Your task to perform on an android device: toggle airplane mode Image 0: 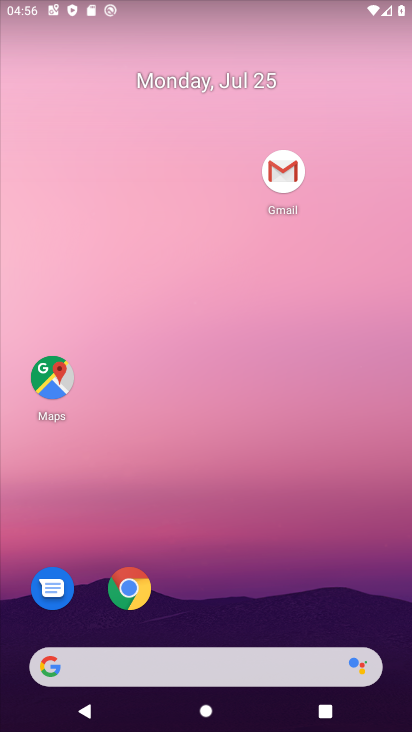
Step 0: drag from (293, 572) to (264, 125)
Your task to perform on an android device: toggle airplane mode Image 1: 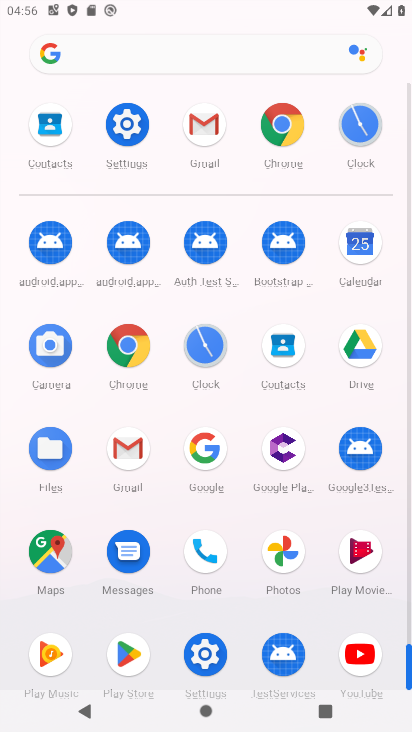
Step 1: click (144, 129)
Your task to perform on an android device: toggle airplane mode Image 2: 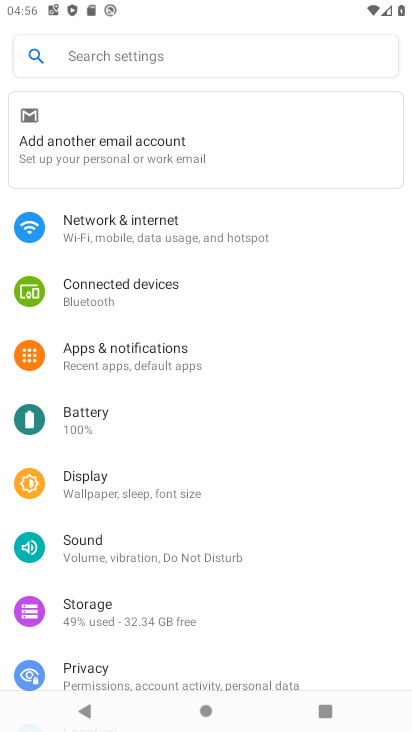
Step 2: click (128, 226)
Your task to perform on an android device: toggle airplane mode Image 3: 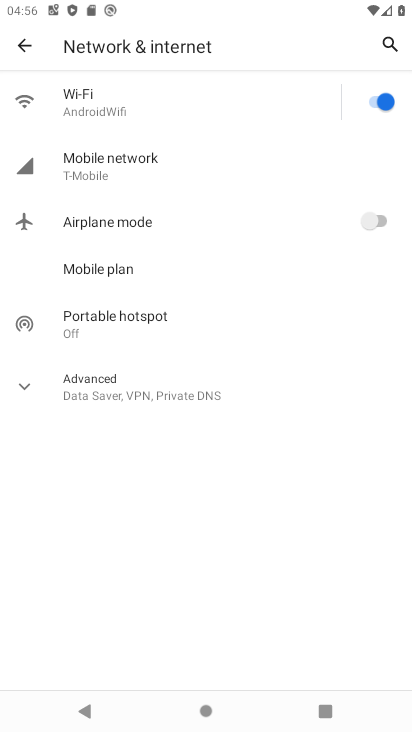
Step 3: click (364, 219)
Your task to perform on an android device: toggle airplane mode Image 4: 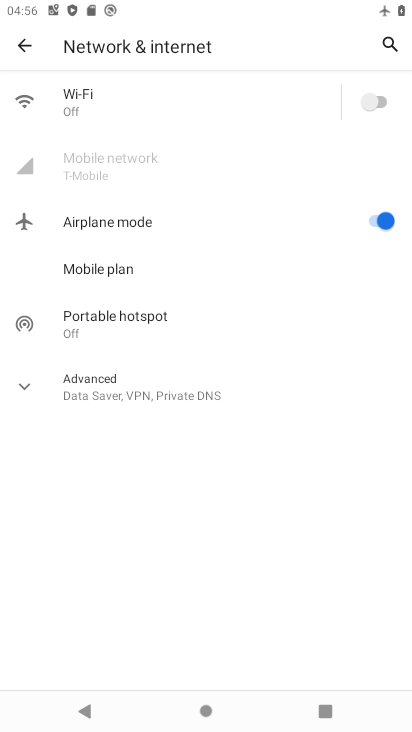
Step 4: task complete